Your task to perform on an android device: toggle notification dots Image 0: 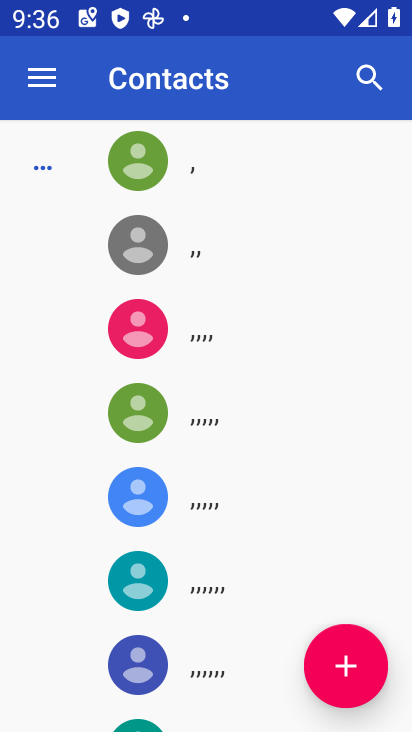
Step 0: press back button
Your task to perform on an android device: toggle notification dots Image 1: 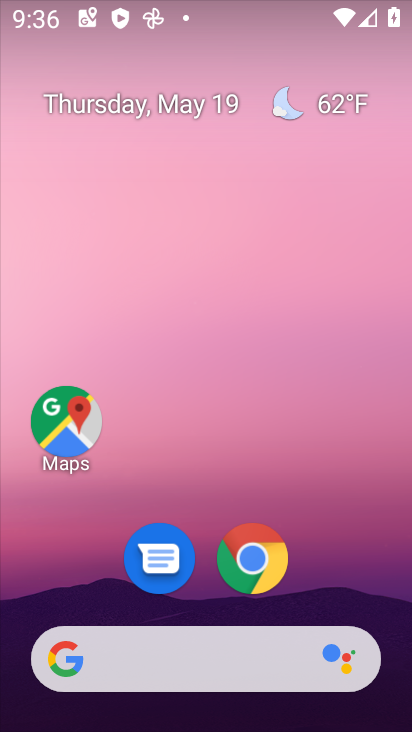
Step 1: drag from (330, 589) to (240, 59)
Your task to perform on an android device: toggle notification dots Image 2: 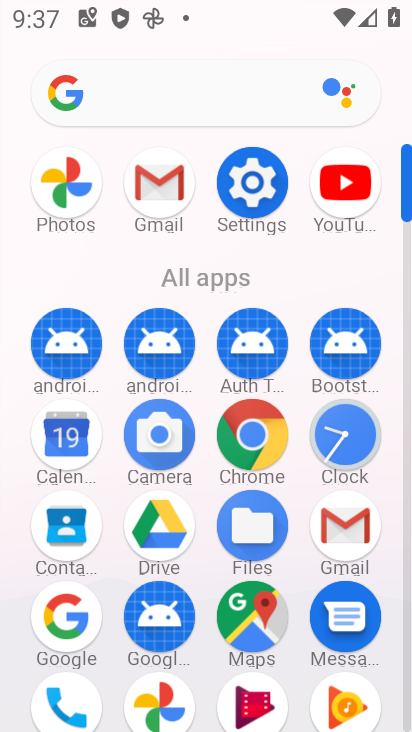
Step 2: click (254, 180)
Your task to perform on an android device: toggle notification dots Image 3: 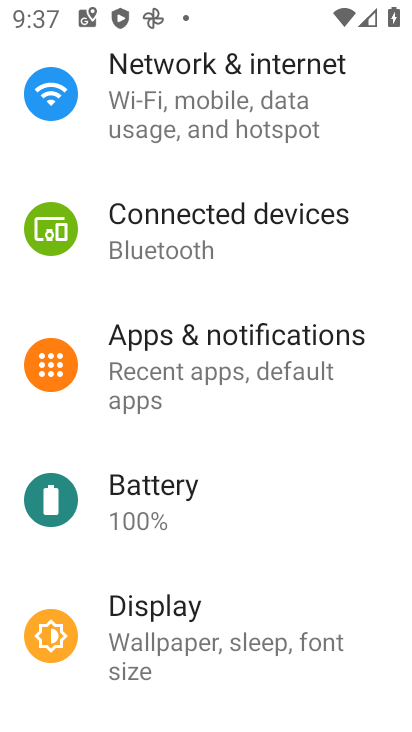
Step 3: click (249, 333)
Your task to perform on an android device: toggle notification dots Image 4: 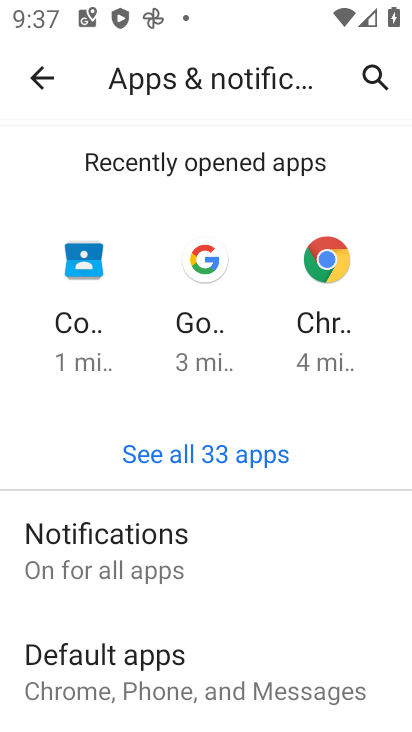
Step 4: click (163, 544)
Your task to perform on an android device: toggle notification dots Image 5: 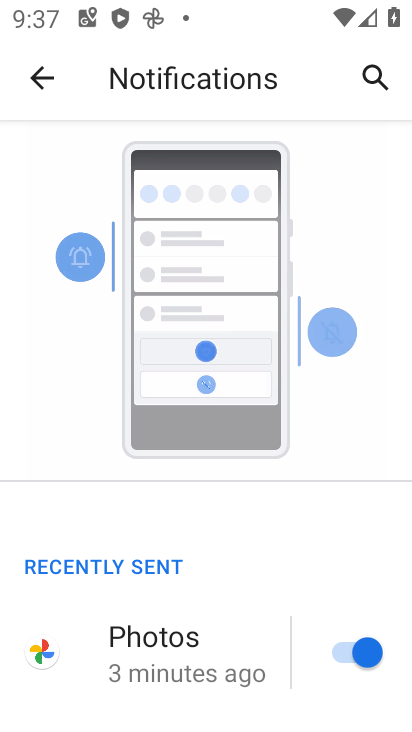
Step 5: drag from (224, 569) to (246, 407)
Your task to perform on an android device: toggle notification dots Image 6: 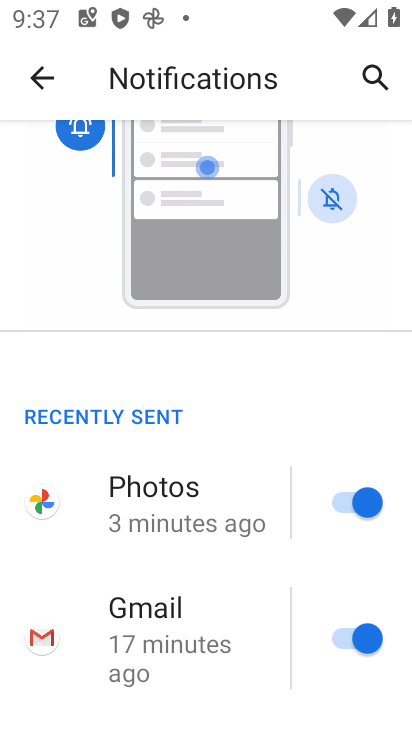
Step 6: drag from (175, 559) to (223, 411)
Your task to perform on an android device: toggle notification dots Image 7: 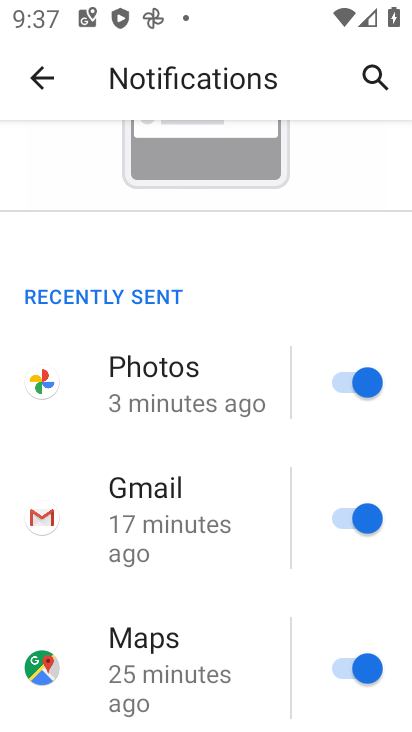
Step 7: drag from (184, 592) to (216, 395)
Your task to perform on an android device: toggle notification dots Image 8: 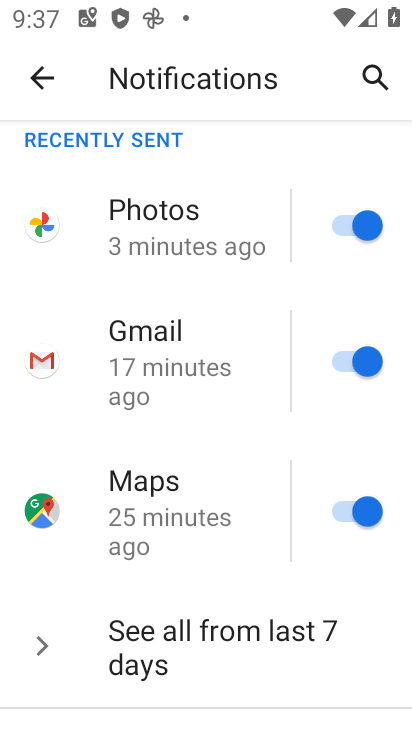
Step 8: drag from (163, 580) to (228, 456)
Your task to perform on an android device: toggle notification dots Image 9: 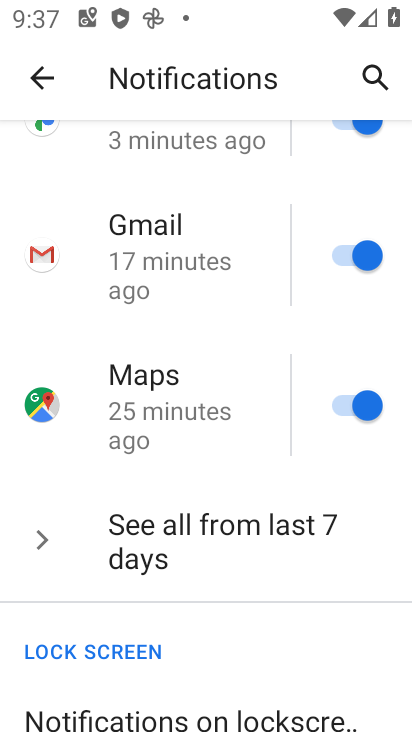
Step 9: drag from (210, 656) to (250, 469)
Your task to perform on an android device: toggle notification dots Image 10: 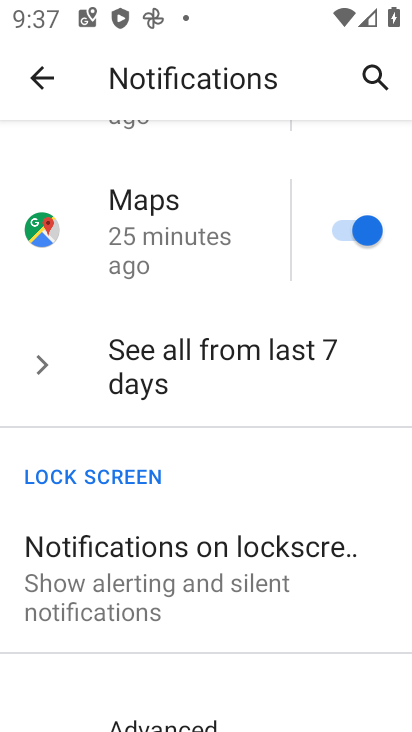
Step 10: drag from (204, 672) to (250, 496)
Your task to perform on an android device: toggle notification dots Image 11: 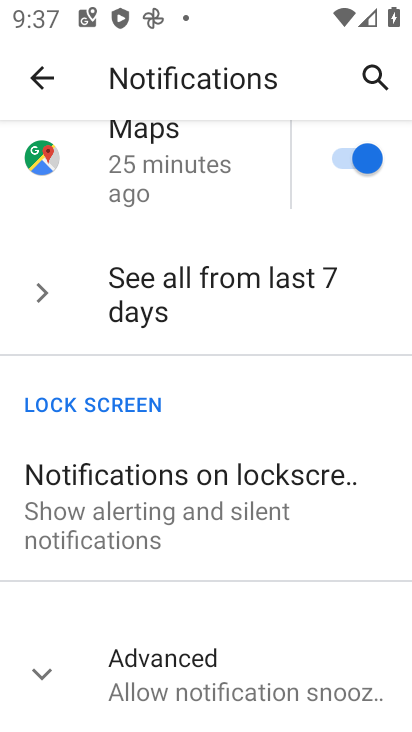
Step 11: click (236, 685)
Your task to perform on an android device: toggle notification dots Image 12: 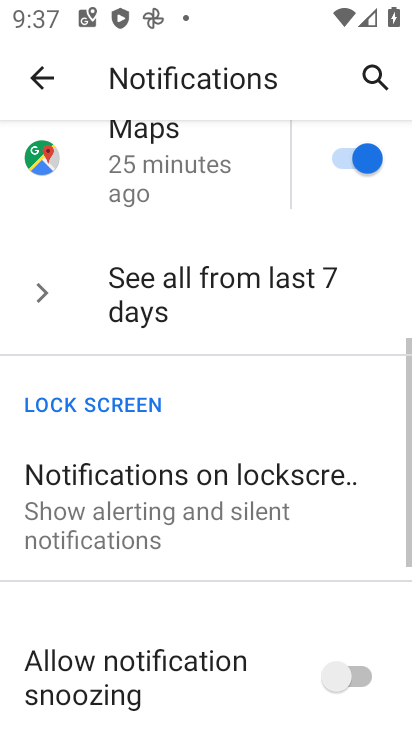
Step 12: drag from (201, 598) to (240, 448)
Your task to perform on an android device: toggle notification dots Image 13: 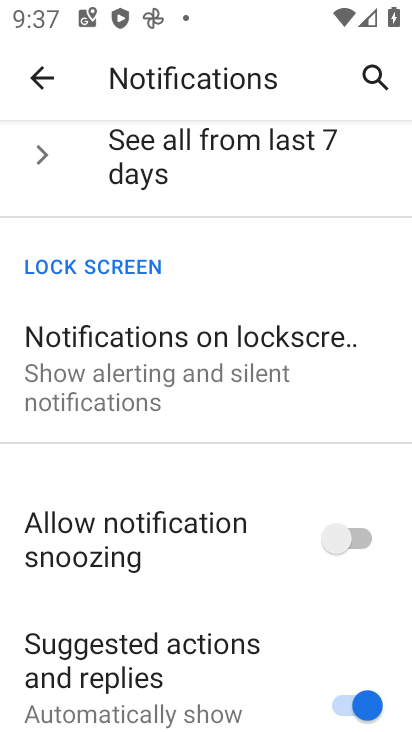
Step 13: drag from (170, 593) to (231, 423)
Your task to perform on an android device: toggle notification dots Image 14: 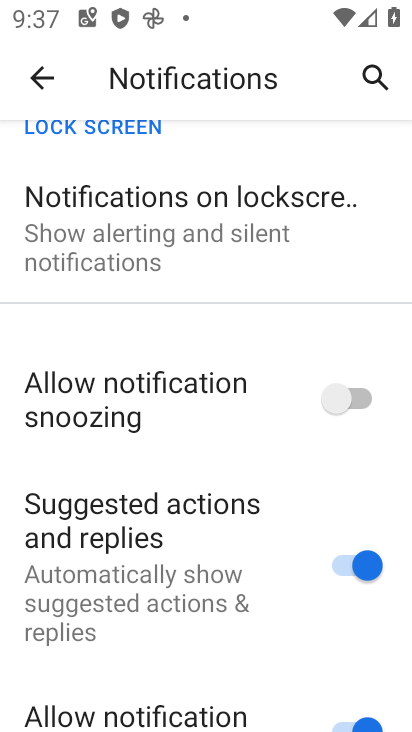
Step 14: drag from (159, 656) to (218, 446)
Your task to perform on an android device: toggle notification dots Image 15: 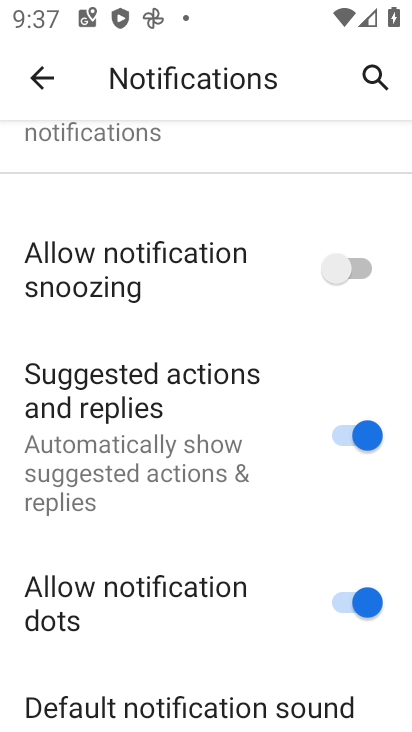
Step 15: click (339, 602)
Your task to perform on an android device: toggle notification dots Image 16: 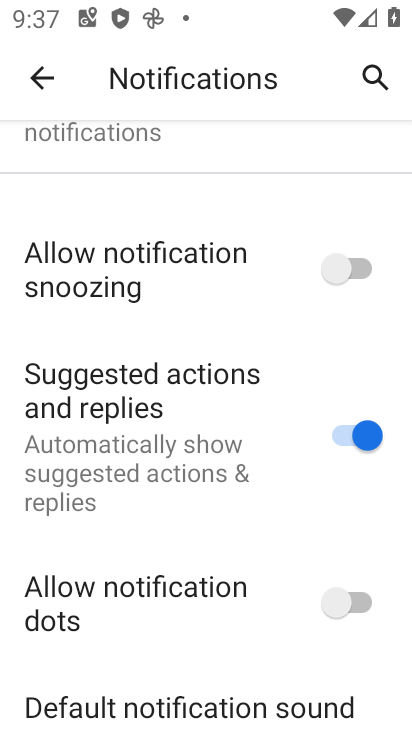
Step 16: task complete